Your task to perform on an android device: set default search engine in the chrome app Image 0: 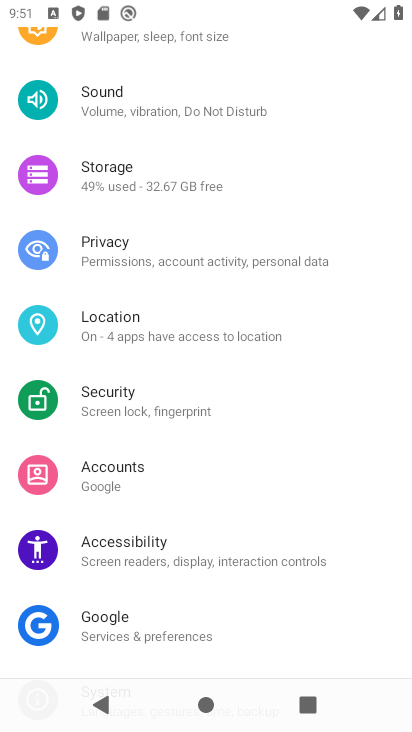
Step 0: press home button
Your task to perform on an android device: set default search engine in the chrome app Image 1: 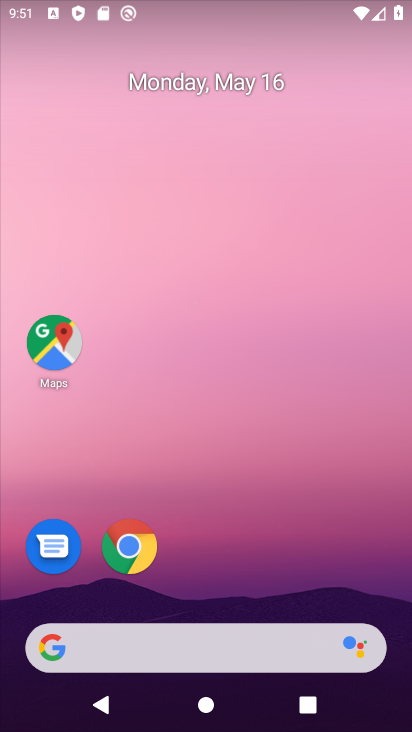
Step 1: click (129, 554)
Your task to perform on an android device: set default search engine in the chrome app Image 2: 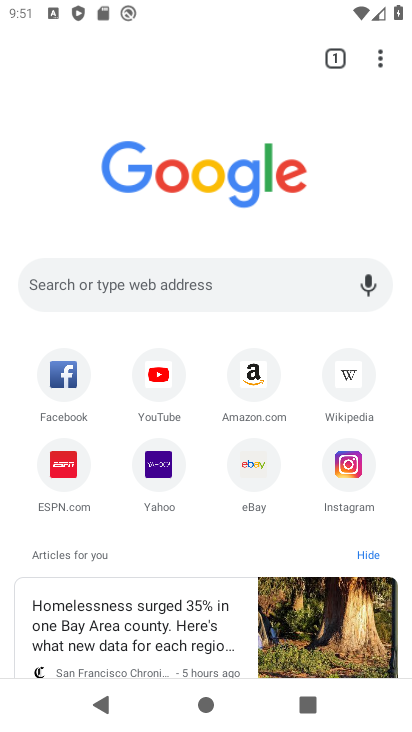
Step 2: click (387, 62)
Your task to perform on an android device: set default search engine in the chrome app Image 3: 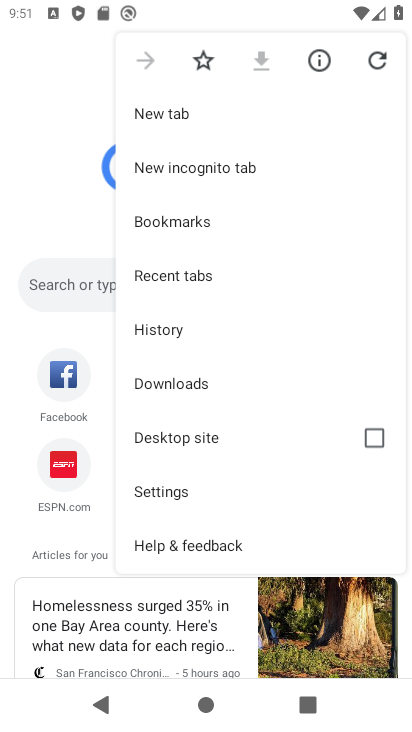
Step 3: click (169, 501)
Your task to perform on an android device: set default search engine in the chrome app Image 4: 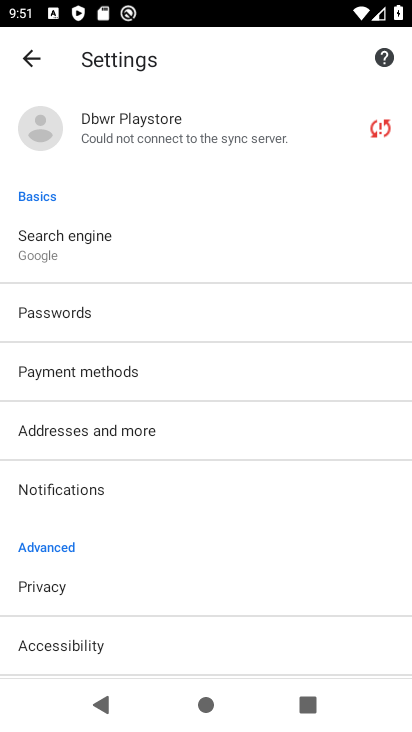
Step 4: click (53, 269)
Your task to perform on an android device: set default search engine in the chrome app Image 5: 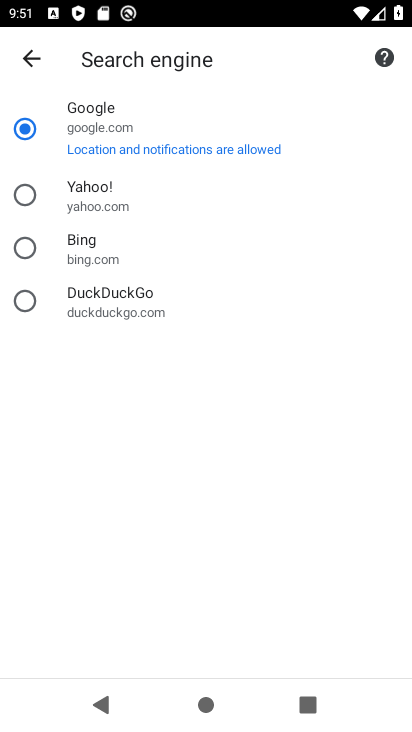
Step 5: click (75, 288)
Your task to perform on an android device: set default search engine in the chrome app Image 6: 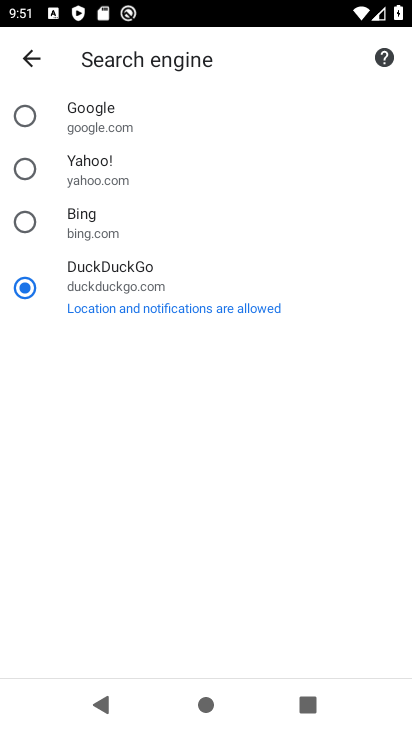
Step 6: task complete